Your task to perform on an android device: toggle javascript in the chrome app Image 0: 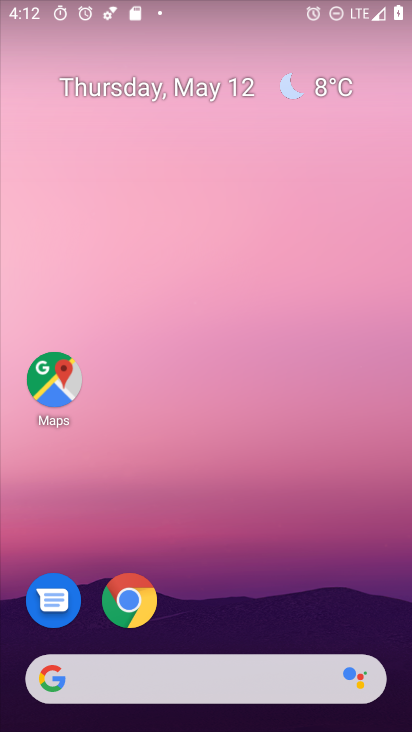
Step 0: click (134, 601)
Your task to perform on an android device: toggle javascript in the chrome app Image 1: 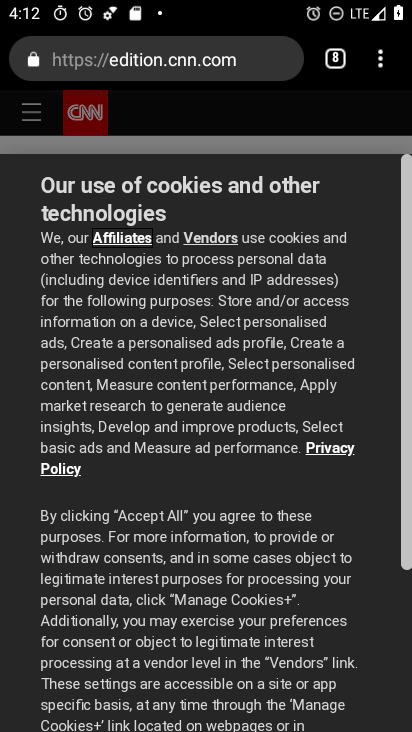
Step 1: click (383, 69)
Your task to perform on an android device: toggle javascript in the chrome app Image 2: 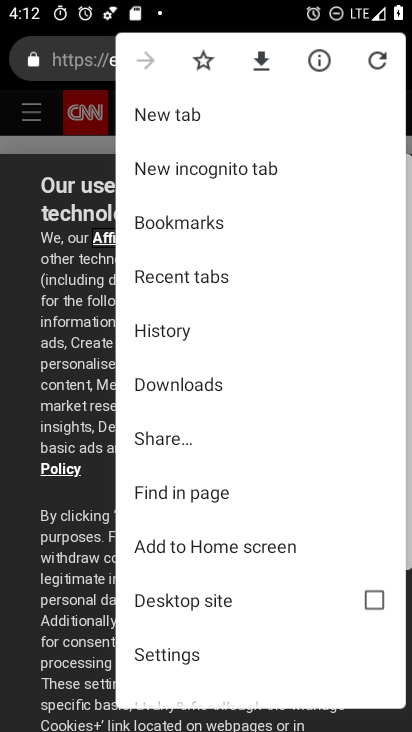
Step 2: click (171, 655)
Your task to perform on an android device: toggle javascript in the chrome app Image 3: 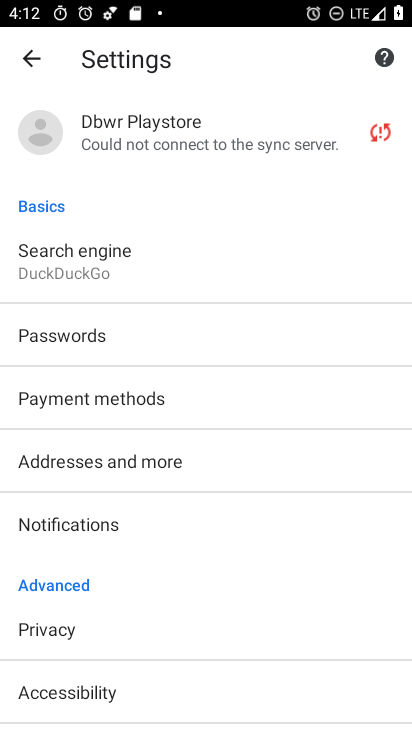
Step 3: drag from (134, 690) to (153, 316)
Your task to perform on an android device: toggle javascript in the chrome app Image 4: 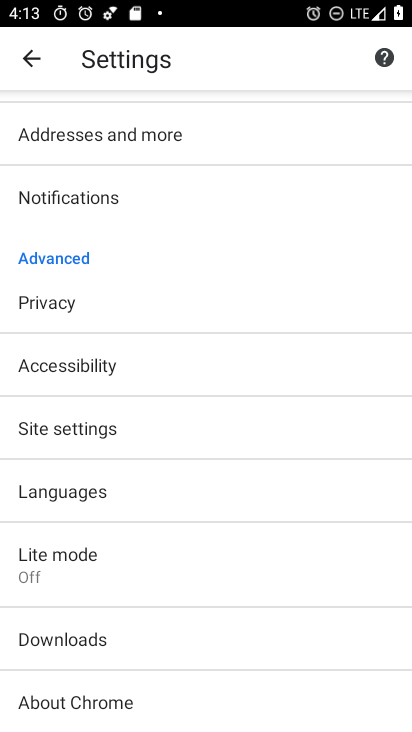
Step 4: click (81, 425)
Your task to perform on an android device: toggle javascript in the chrome app Image 5: 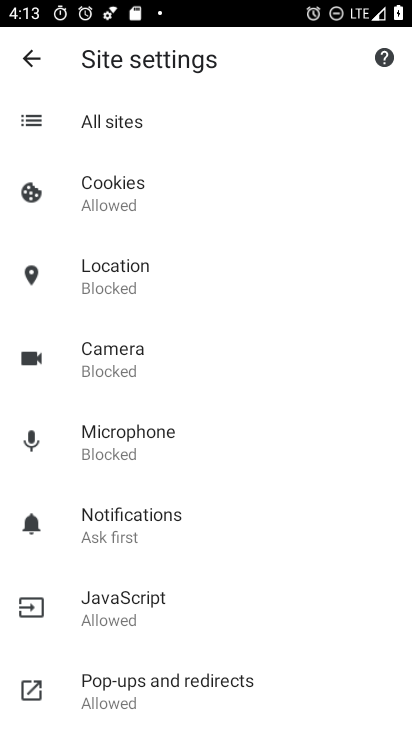
Step 5: click (119, 603)
Your task to perform on an android device: toggle javascript in the chrome app Image 6: 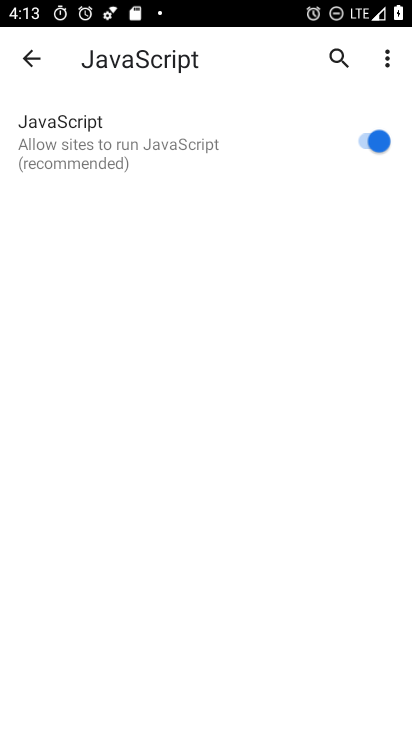
Step 6: task complete